Your task to perform on an android device: turn on data saver in the chrome app Image 0: 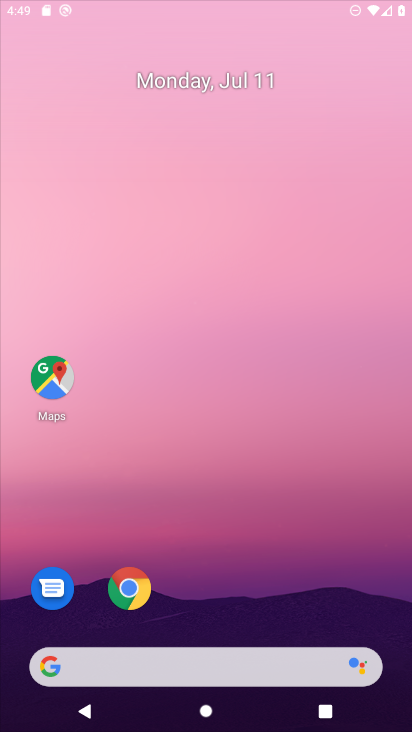
Step 0: press home button
Your task to perform on an android device: turn on data saver in the chrome app Image 1: 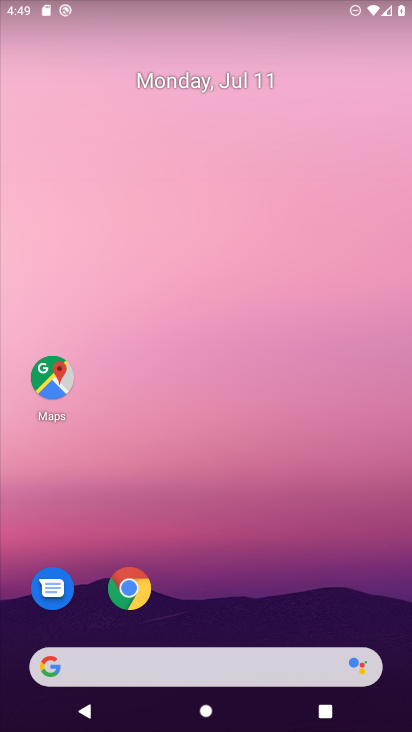
Step 1: drag from (262, 627) to (271, 72)
Your task to perform on an android device: turn on data saver in the chrome app Image 2: 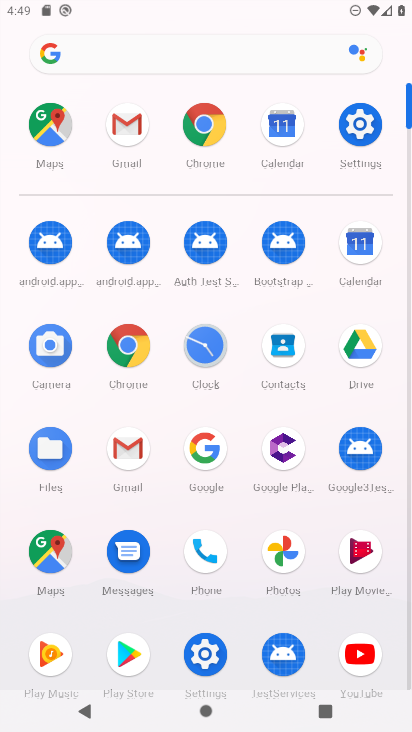
Step 2: click (195, 128)
Your task to perform on an android device: turn on data saver in the chrome app Image 3: 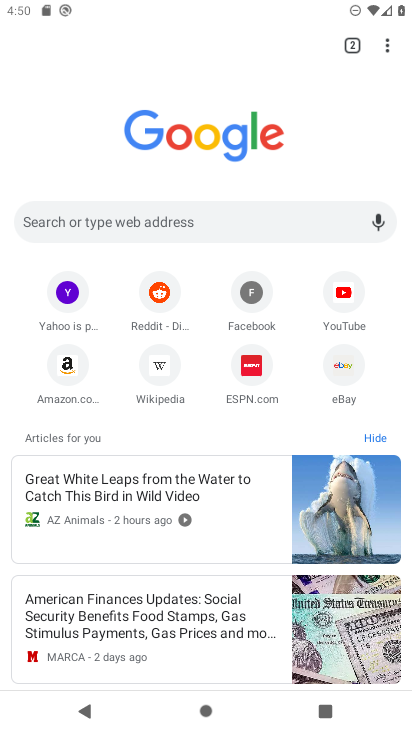
Step 3: drag from (387, 49) to (204, 434)
Your task to perform on an android device: turn on data saver in the chrome app Image 4: 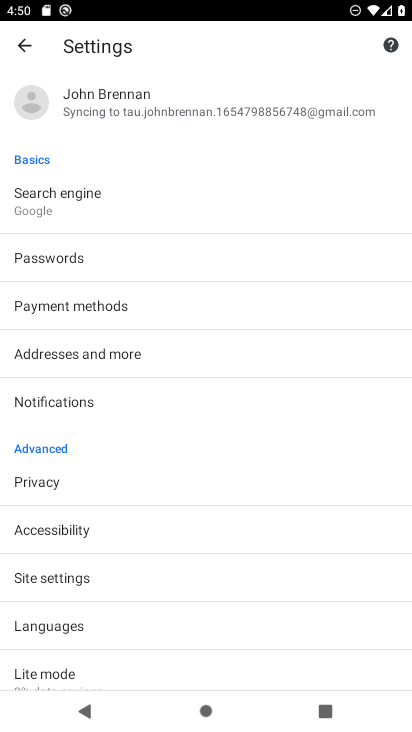
Step 4: click (37, 675)
Your task to perform on an android device: turn on data saver in the chrome app Image 5: 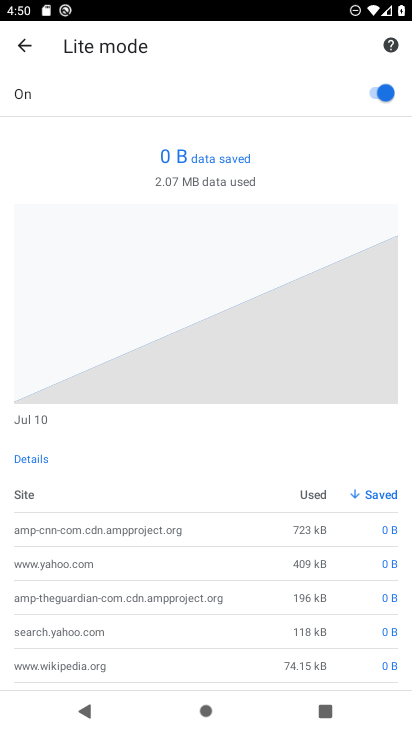
Step 5: task complete